Your task to perform on an android device: Do I have any events this weekend? Image 0: 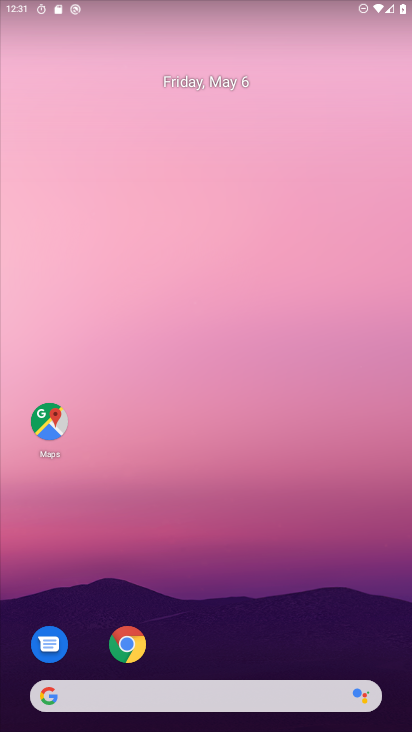
Step 0: drag from (361, 600) to (359, 145)
Your task to perform on an android device: Do I have any events this weekend? Image 1: 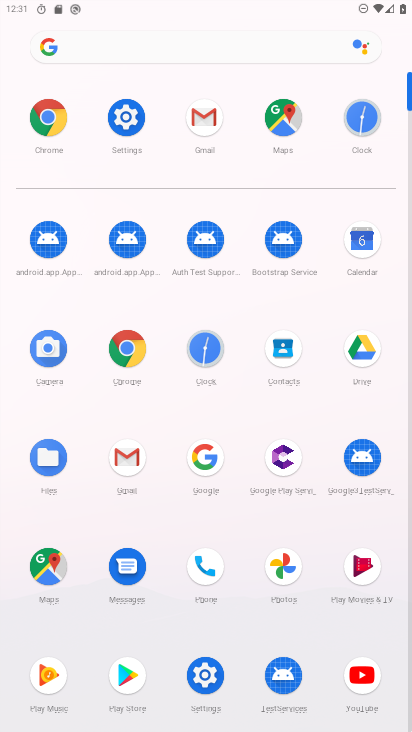
Step 1: click (369, 246)
Your task to perform on an android device: Do I have any events this weekend? Image 2: 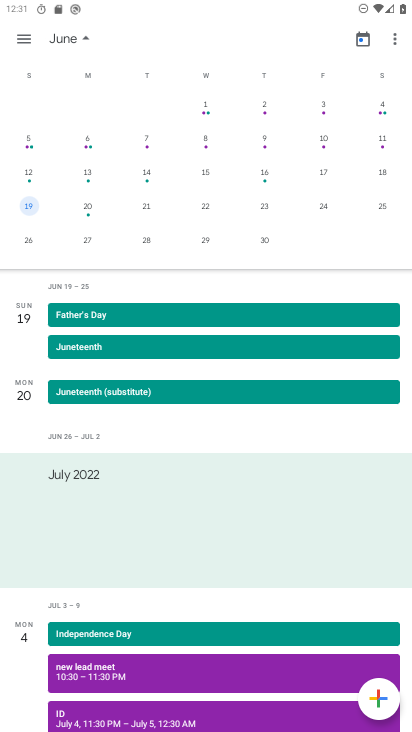
Step 2: task complete